Your task to perform on an android device: Search for the new Nike Air Jordan 33 on Nike.com Image 0: 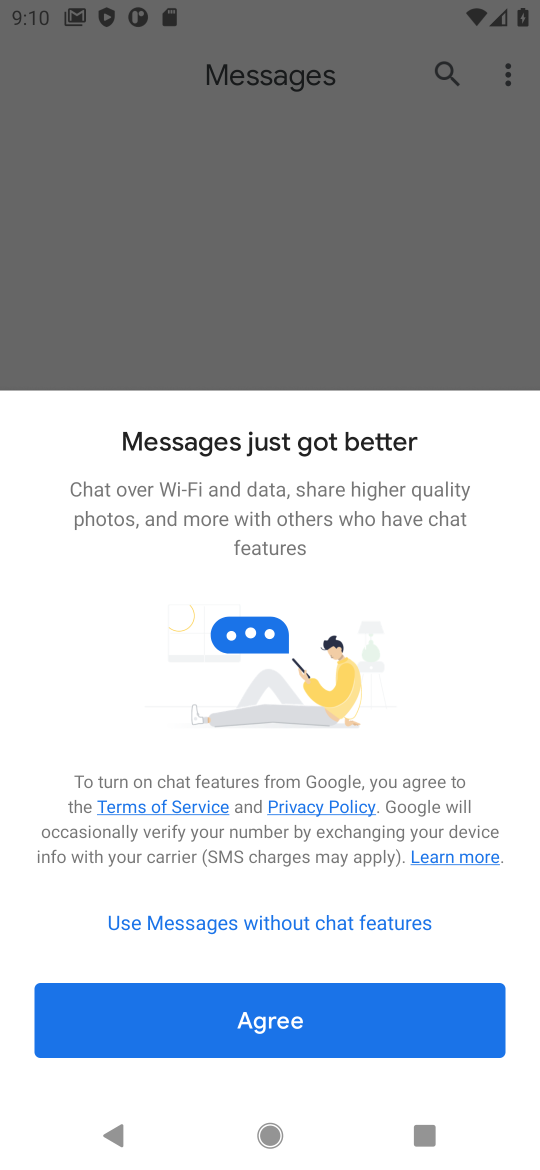
Step 0: press back button
Your task to perform on an android device: Search for the new Nike Air Jordan 33 on Nike.com Image 1: 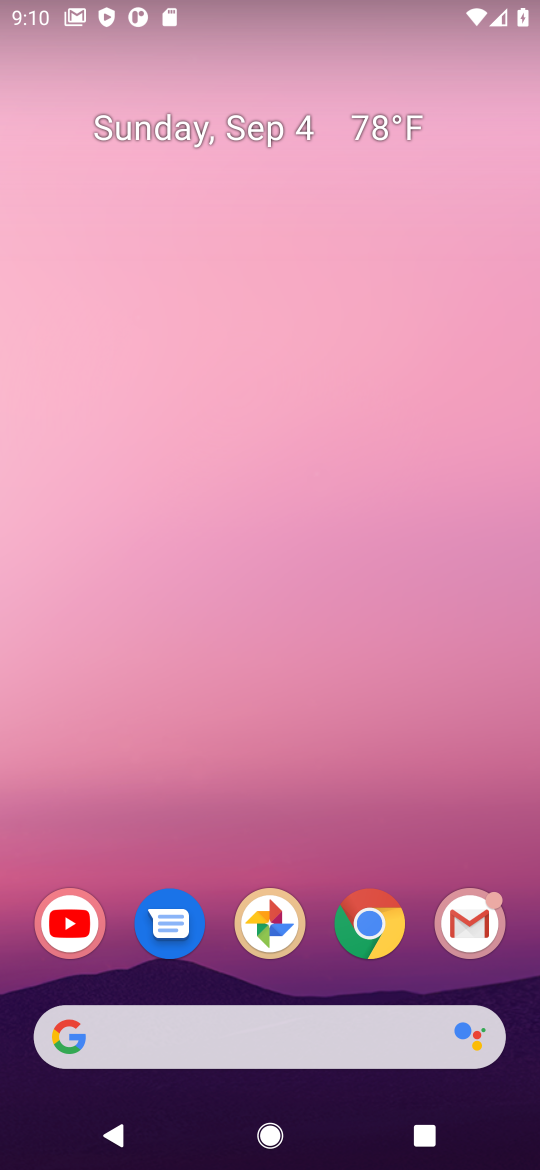
Step 1: click (146, 1040)
Your task to perform on an android device: Search for the new Nike Air Jordan 33 on Nike.com Image 2: 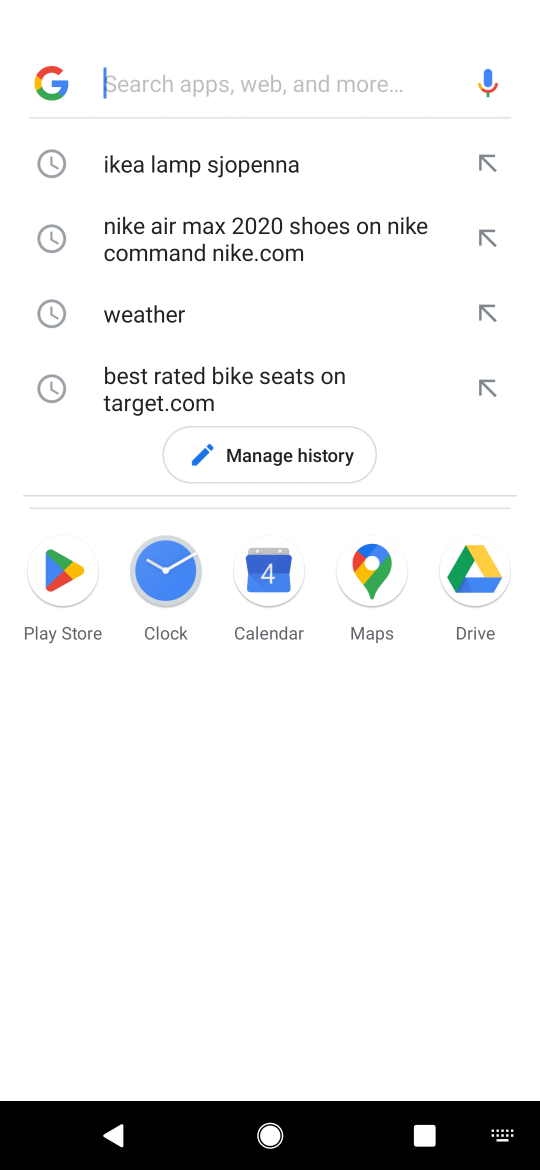
Step 2: type " new Nike Air Jordan 33 on Nike.com"
Your task to perform on an android device: Search for the new Nike Air Jordan 33 on Nike.com Image 3: 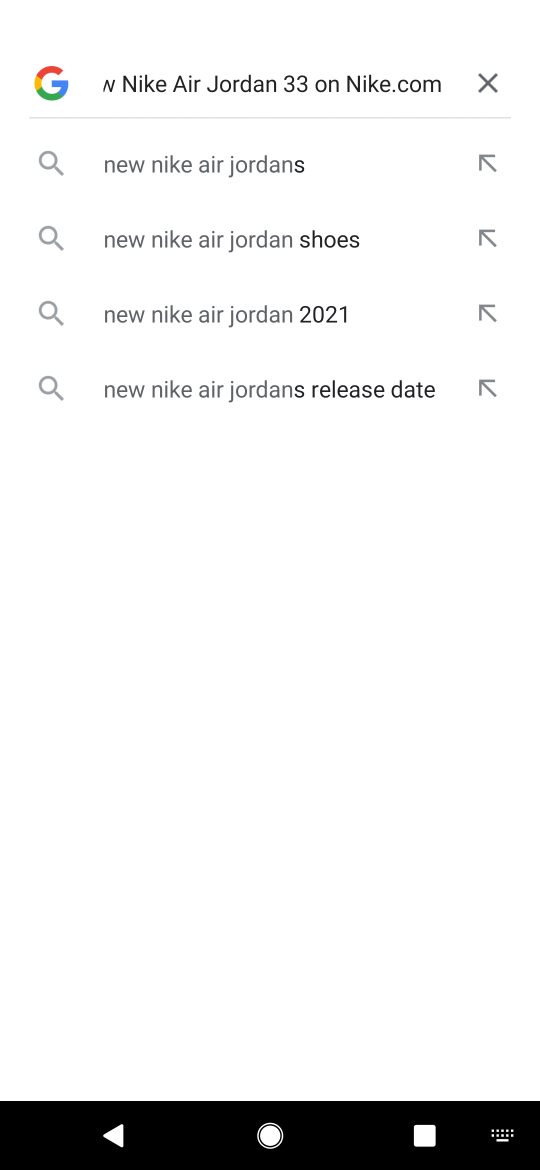
Step 3: type ""
Your task to perform on an android device: Search for the new Nike Air Jordan 33 on Nike.com Image 4: 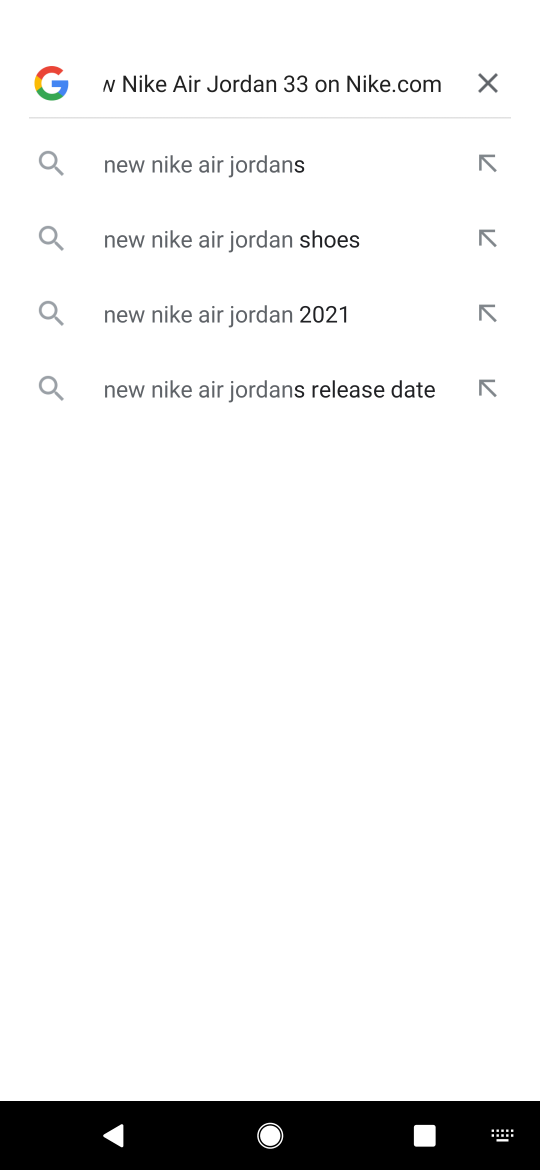
Step 4: type ""
Your task to perform on an android device: Search for the new Nike Air Jordan 33 on Nike.com Image 5: 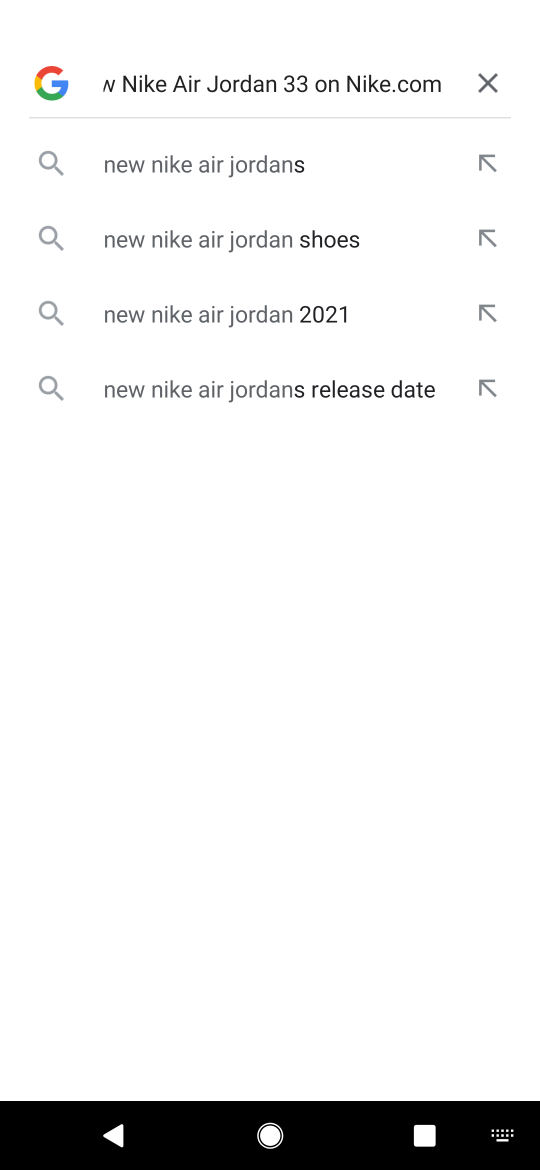
Step 5: type ""
Your task to perform on an android device: Search for the new Nike Air Jordan 33 on Nike.com Image 6: 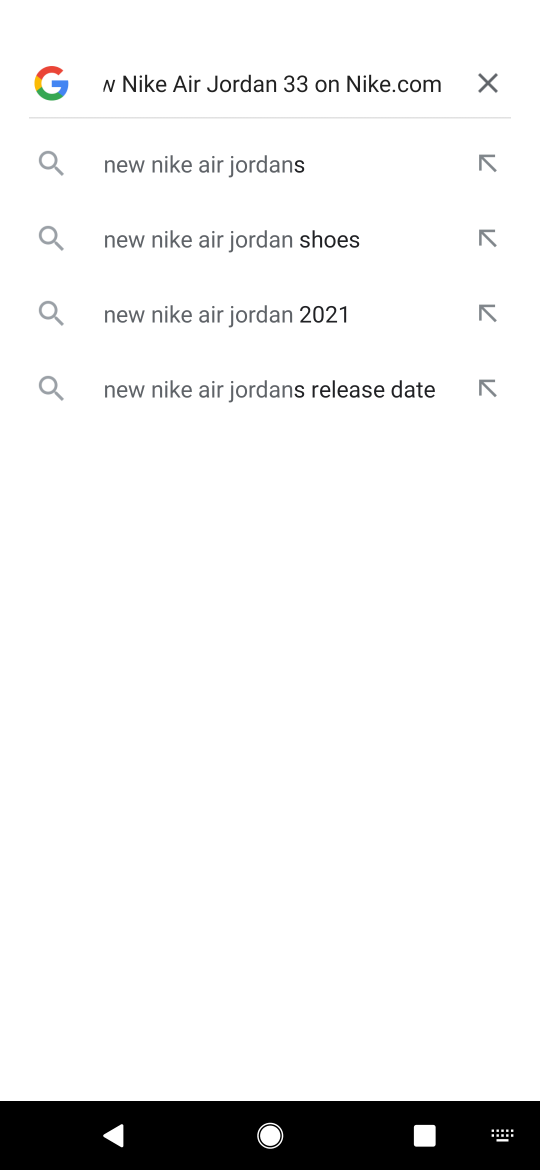
Step 6: type ""
Your task to perform on an android device: Search for the new Nike Air Jordan 33 on Nike.com Image 7: 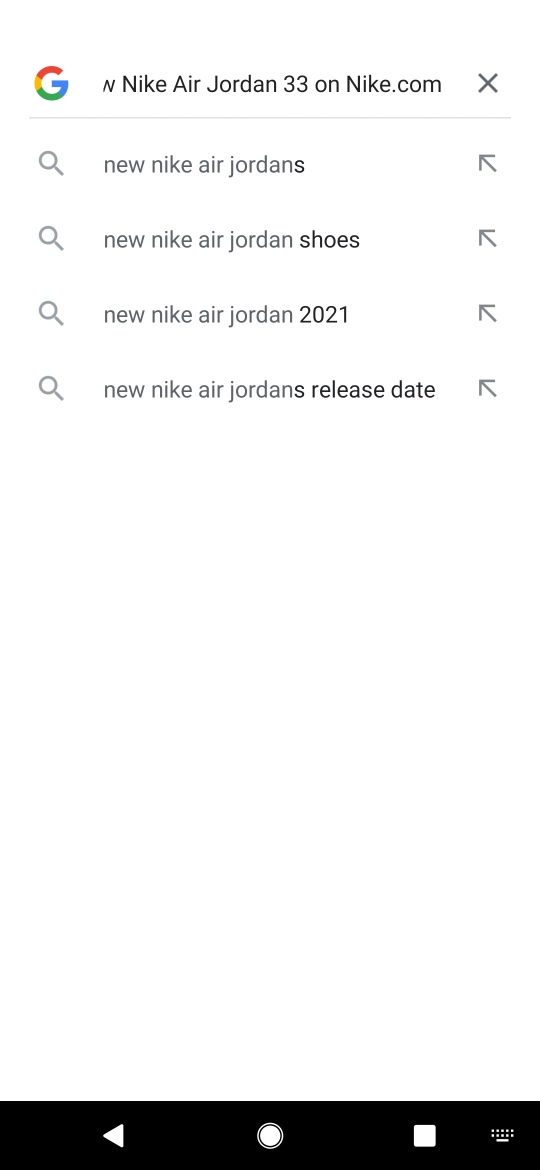
Step 7: task complete